Your task to perform on an android device: Open Reddit.com Image 0: 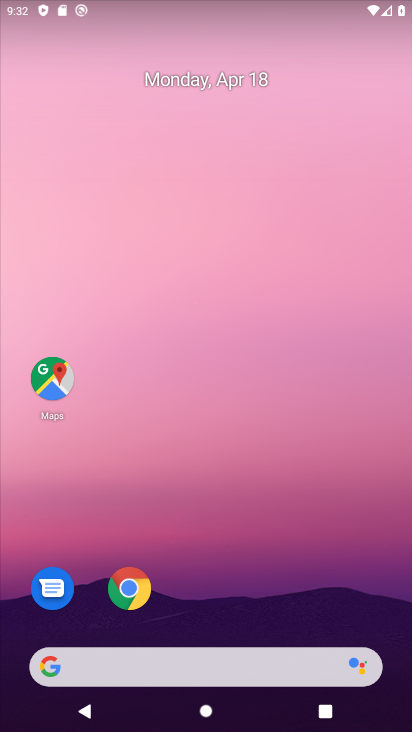
Step 0: drag from (289, 616) to (257, 90)
Your task to perform on an android device: Open Reddit.com Image 1: 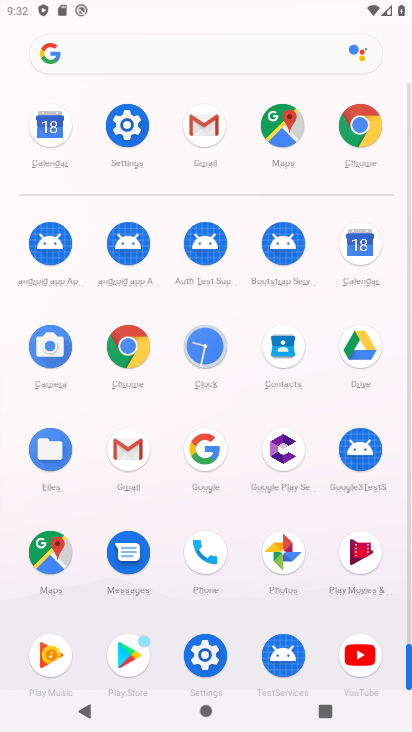
Step 1: click (135, 345)
Your task to perform on an android device: Open Reddit.com Image 2: 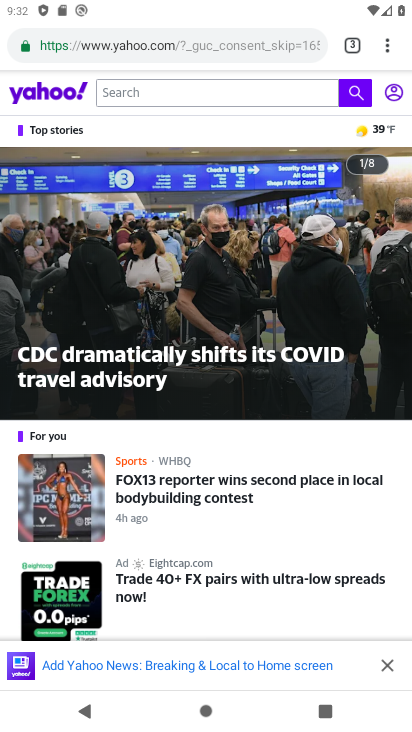
Step 2: drag from (384, 44) to (207, 88)
Your task to perform on an android device: Open Reddit.com Image 3: 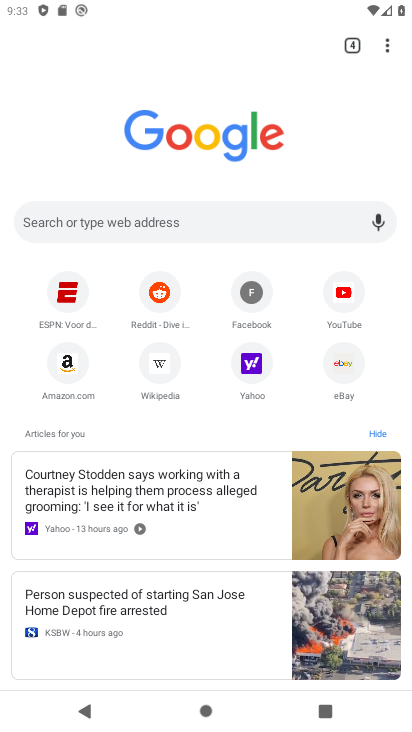
Step 3: click (161, 226)
Your task to perform on an android device: Open Reddit.com Image 4: 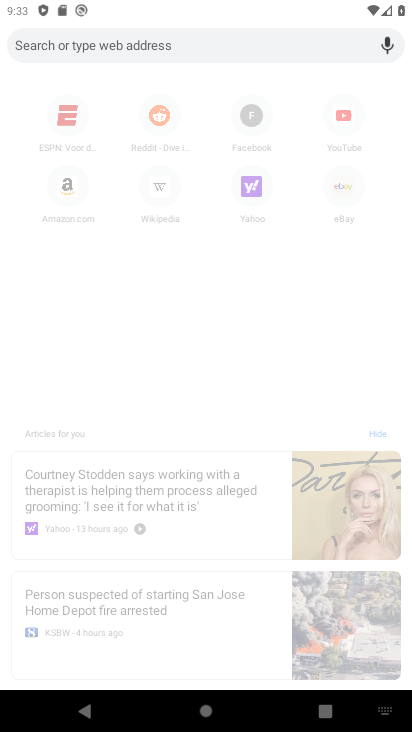
Step 4: type " Reddit.com"
Your task to perform on an android device: Open Reddit.com Image 5: 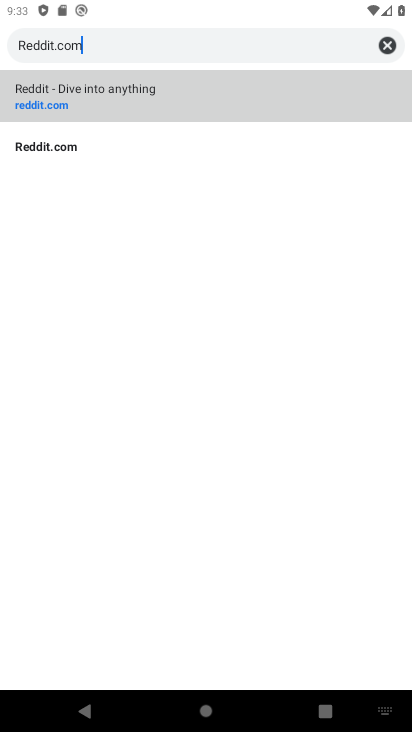
Step 5: click (33, 100)
Your task to perform on an android device: Open Reddit.com Image 6: 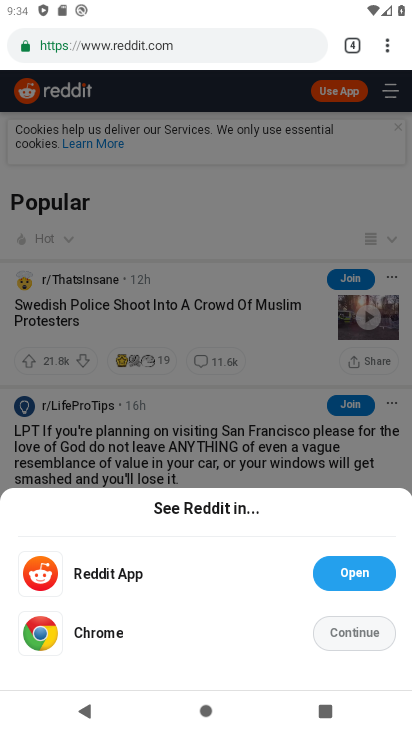
Step 6: task complete